Your task to perform on an android device: Is it going to rain today? Image 0: 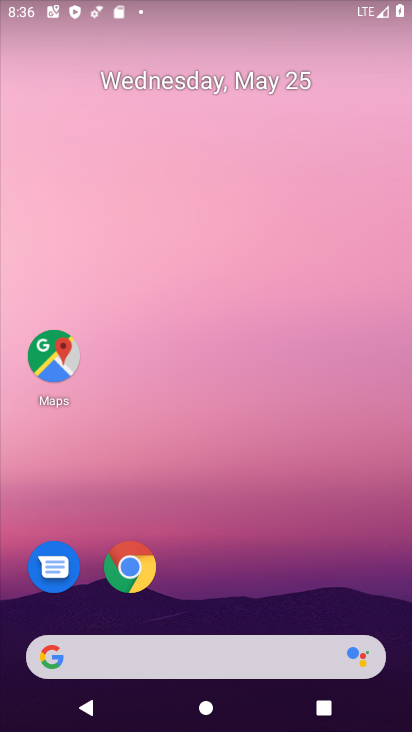
Step 0: click (259, 658)
Your task to perform on an android device: Is it going to rain today? Image 1: 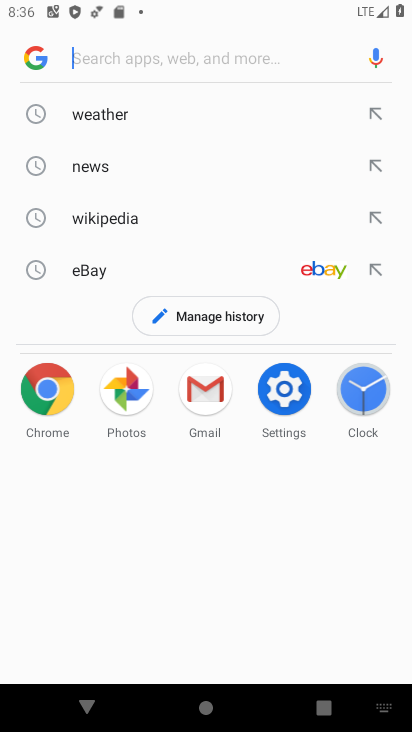
Step 1: click (108, 119)
Your task to perform on an android device: Is it going to rain today? Image 2: 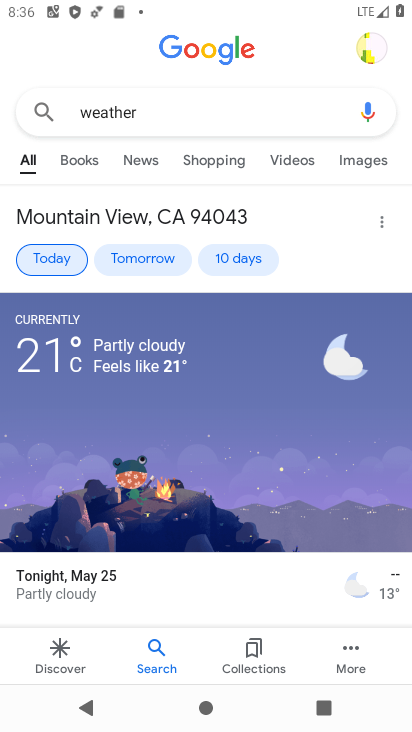
Step 2: click (58, 253)
Your task to perform on an android device: Is it going to rain today? Image 3: 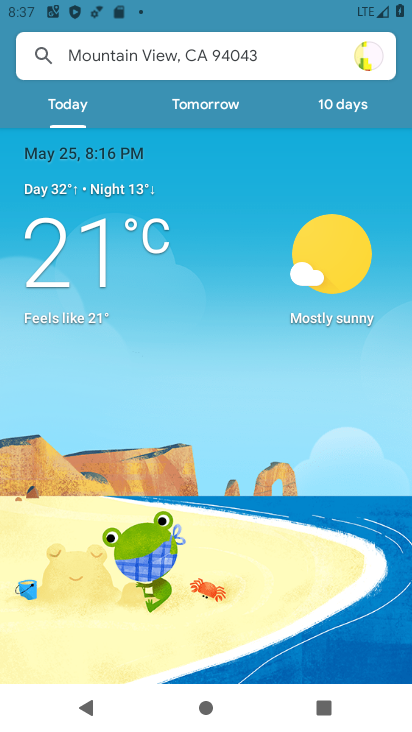
Step 3: task complete